Your task to perform on an android device: find snoozed emails in the gmail app Image 0: 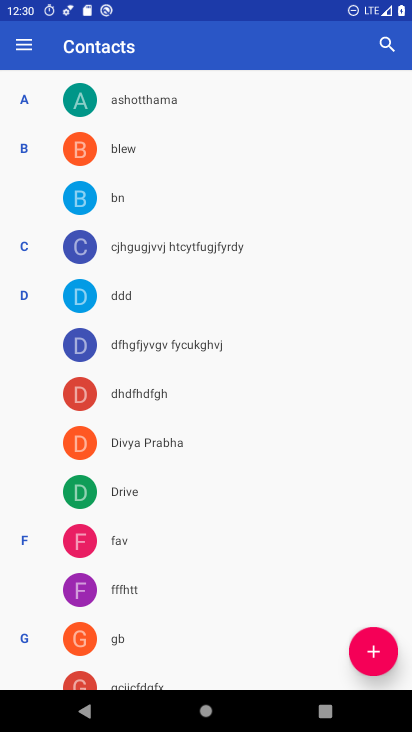
Step 0: press home button
Your task to perform on an android device: find snoozed emails in the gmail app Image 1: 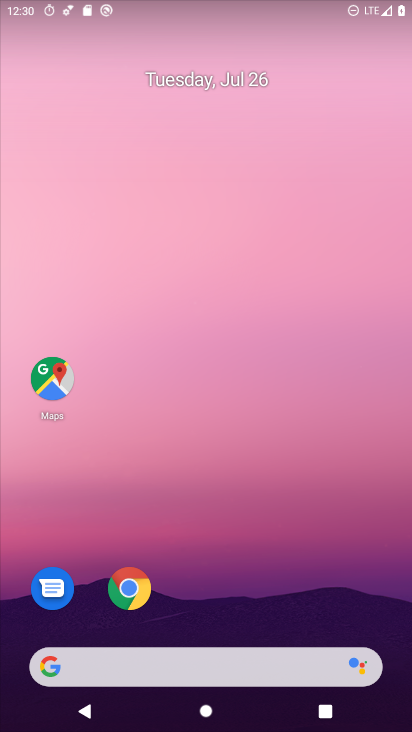
Step 1: drag from (193, 617) to (163, 211)
Your task to perform on an android device: find snoozed emails in the gmail app Image 2: 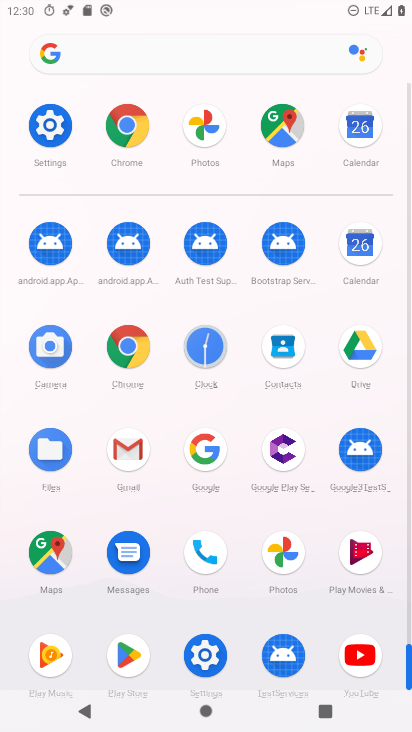
Step 2: click (140, 472)
Your task to perform on an android device: find snoozed emails in the gmail app Image 3: 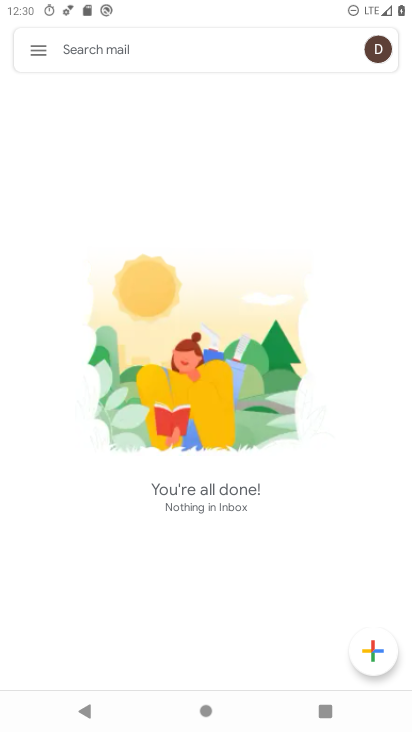
Step 3: click (34, 39)
Your task to perform on an android device: find snoozed emails in the gmail app Image 4: 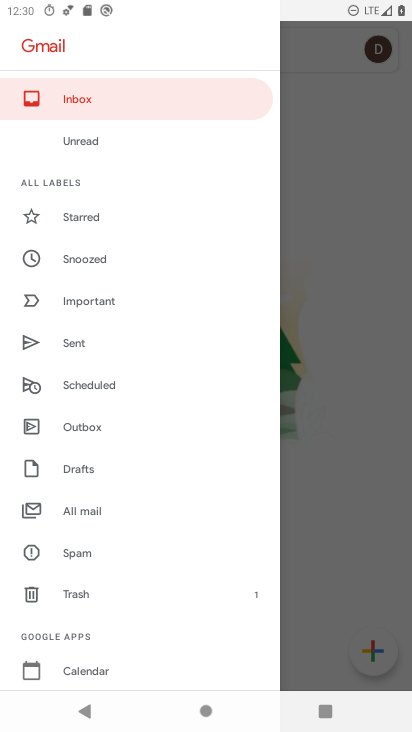
Step 4: click (106, 261)
Your task to perform on an android device: find snoozed emails in the gmail app Image 5: 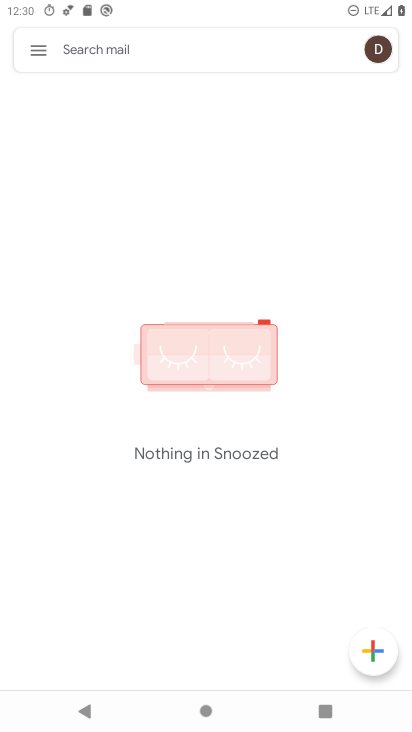
Step 5: task complete